Your task to perform on an android device: When is my next appointment? Image 0: 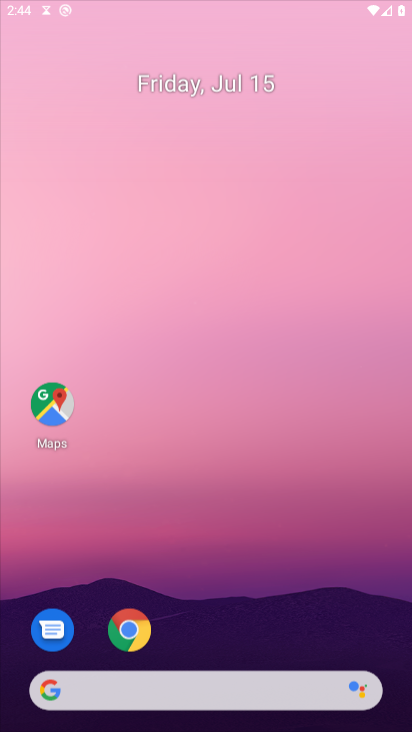
Step 0: press home button
Your task to perform on an android device: When is my next appointment? Image 1: 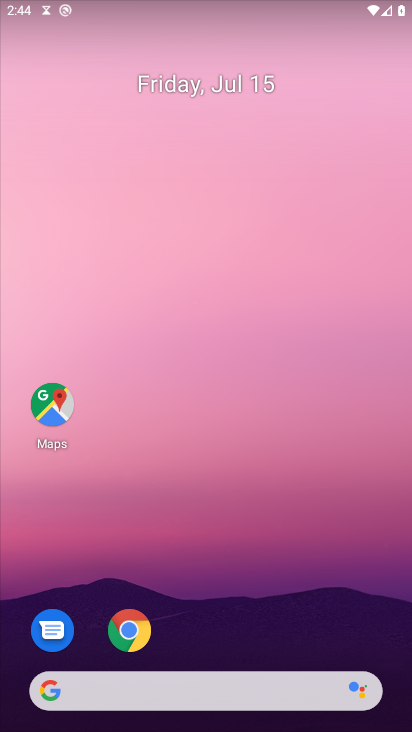
Step 1: drag from (219, 641) to (151, 141)
Your task to perform on an android device: When is my next appointment? Image 2: 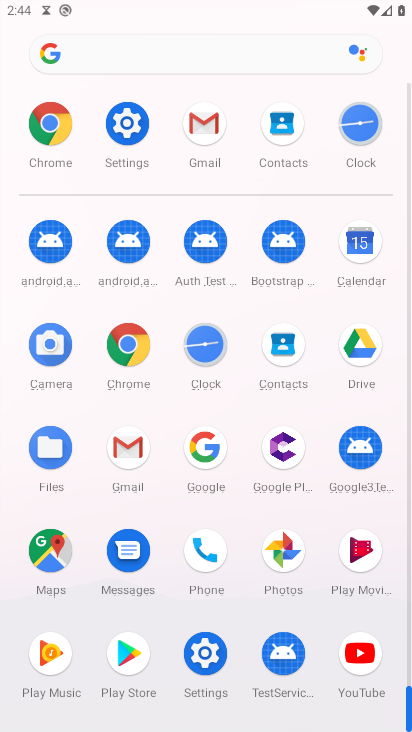
Step 2: click (364, 242)
Your task to perform on an android device: When is my next appointment? Image 3: 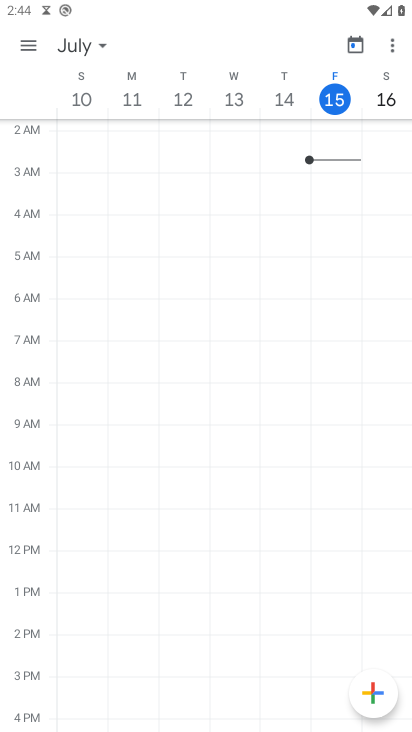
Step 3: click (25, 45)
Your task to perform on an android device: When is my next appointment? Image 4: 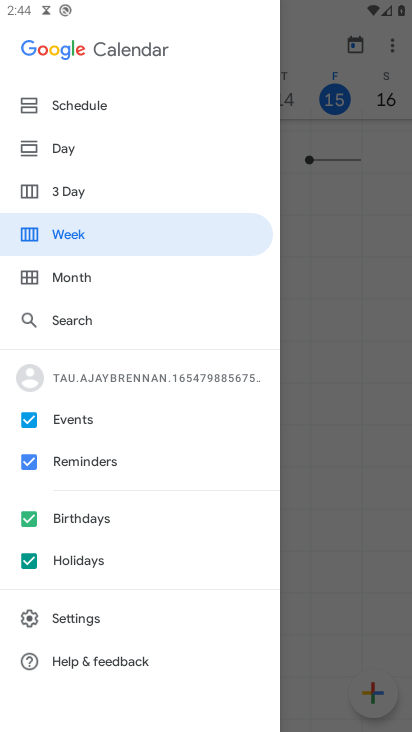
Step 4: click (74, 108)
Your task to perform on an android device: When is my next appointment? Image 5: 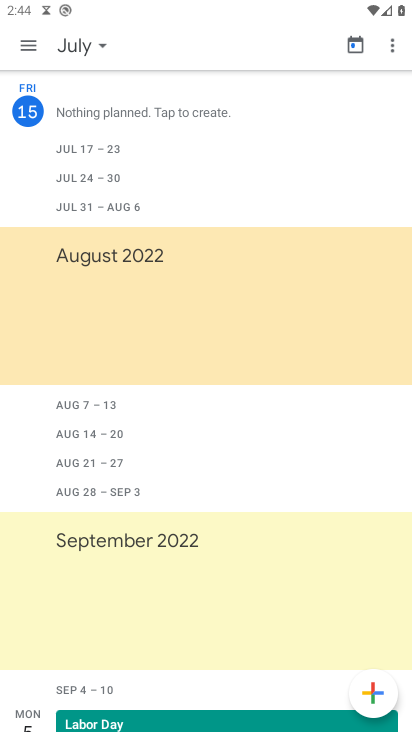
Step 5: task complete